Your task to perform on an android device: Open sound settings Image 0: 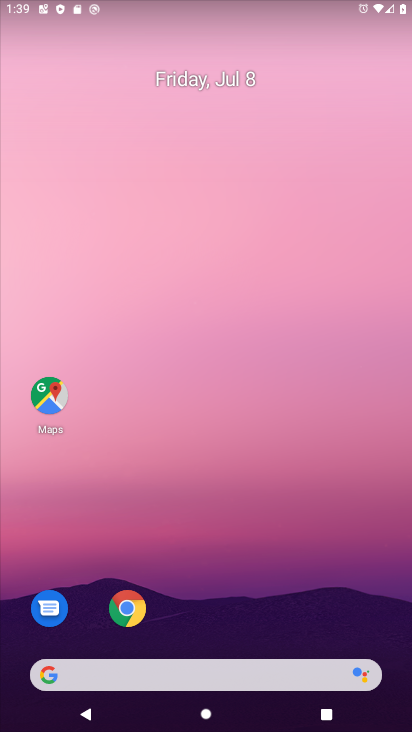
Step 0: drag from (243, 15) to (200, 644)
Your task to perform on an android device: Open sound settings Image 1: 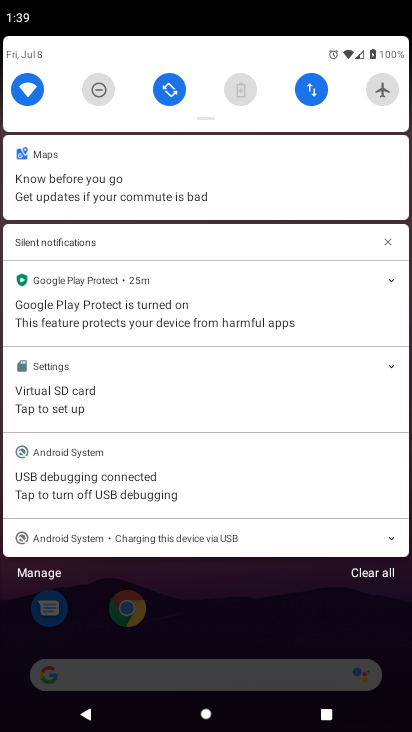
Step 1: drag from (209, 56) to (191, 553)
Your task to perform on an android device: Open sound settings Image 2: 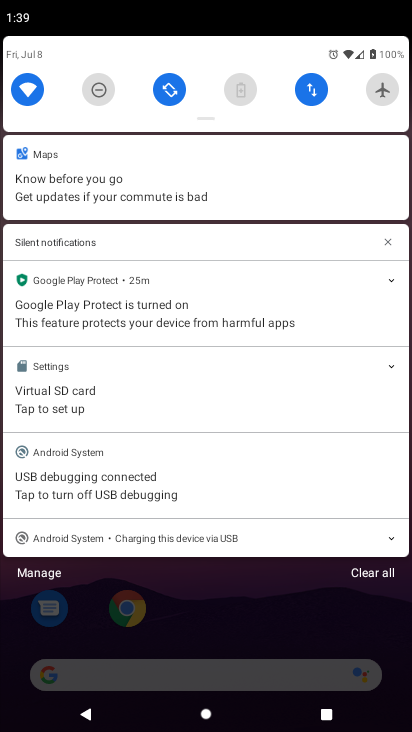
Step 2: drag from (228, 55) to (201, 564)
Your task to perform on an android device: Open sound settings Image 3: 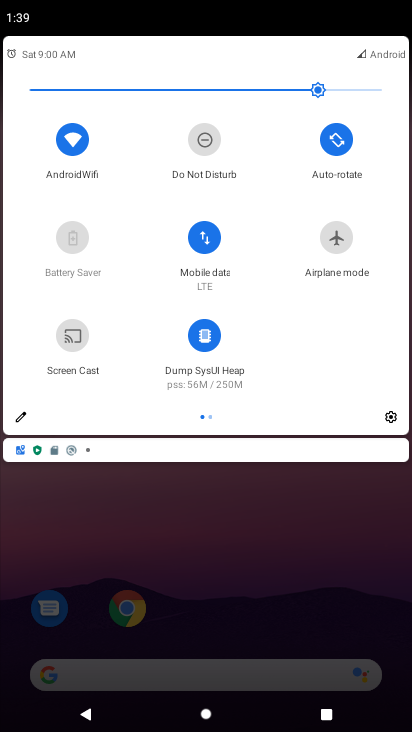
Step 3: click (390, 423)
Your task to perform on an android device: Open sound settings Image 4: 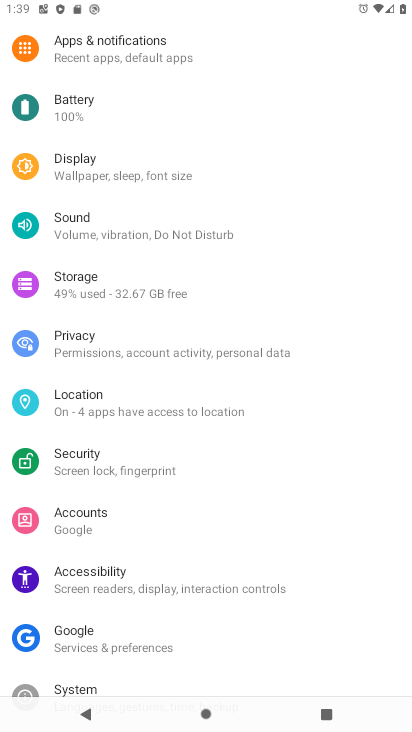
Step 4: click (115, 222)
Your task to perform on an android device: Open sound settings Image 5: 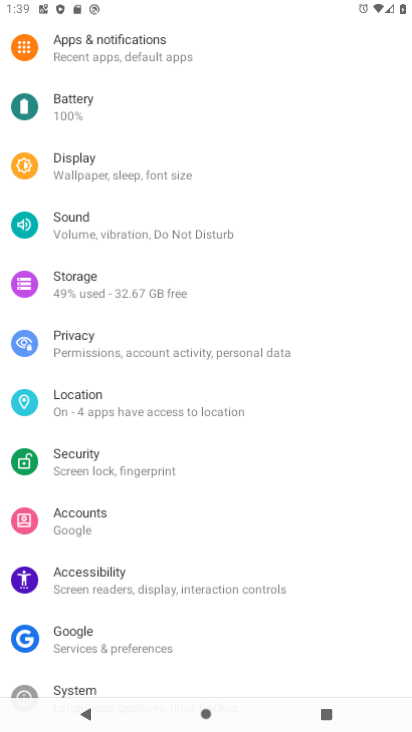
Step 5: task complete